Your task to perform on an android device: Show me popular games on the Play Store Image 0: 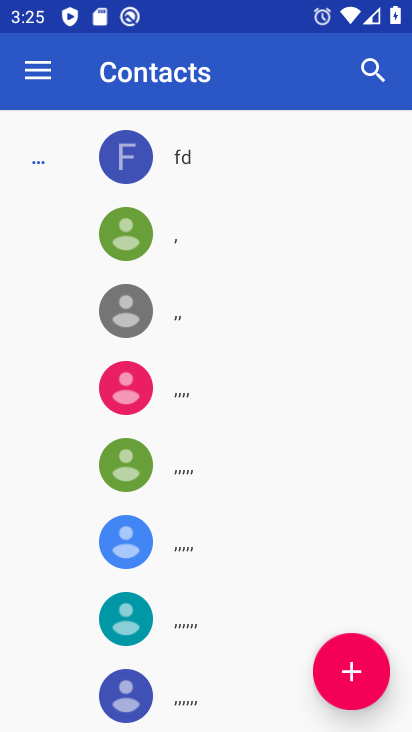
Step 0: press home button
Your task to perform on an android device: Show me popular games on the Play Store Image 1: 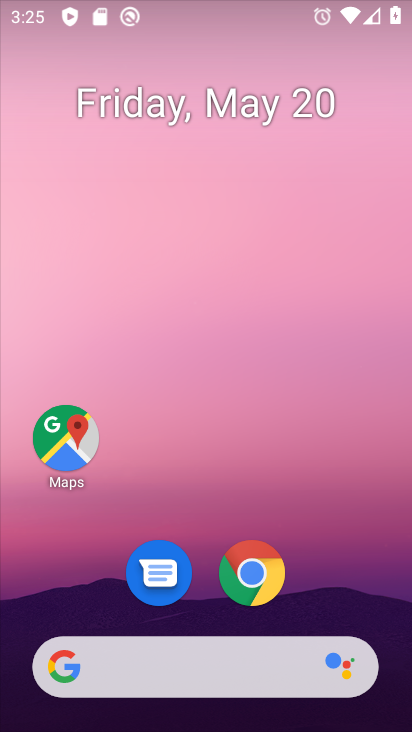
Step 1: drag from (216, 635) to (216, 145)
Your task to perform on an android device: Show me popular games on the Play Store Image 2: 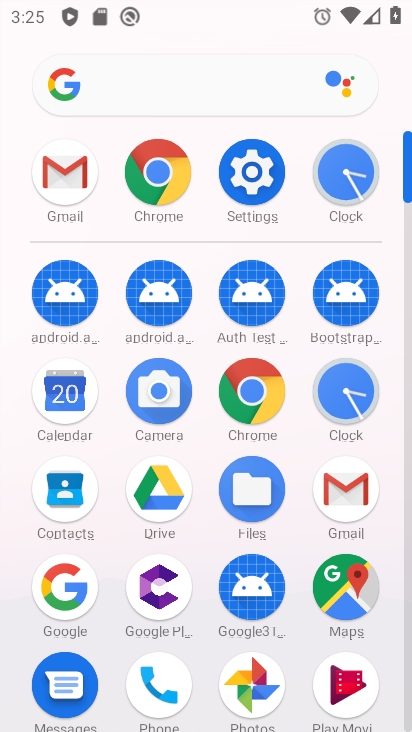
Step 2: drag from (206, 556) to (187, 233)
Your task to perform on an android device: Show me popular games on the Play Store Image 3: 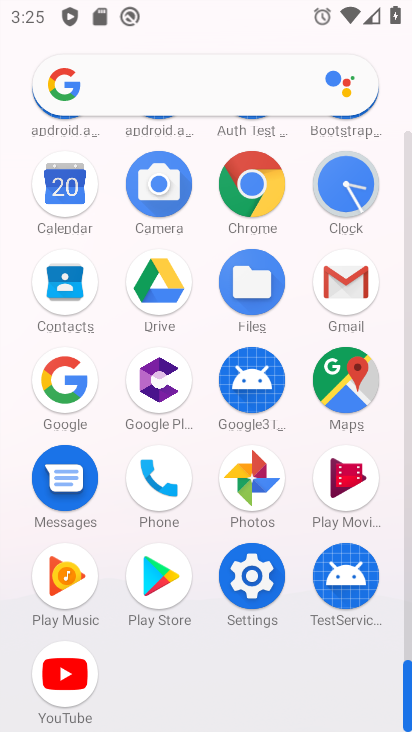
Step 3: click (167, 590)
Your task to perform on an android device: Show me popular games on the Play Store Image 4: 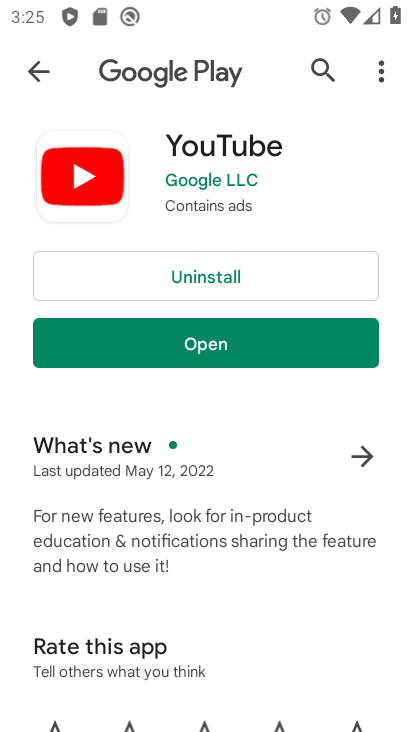
Step 4: click (36, 71)
Your task to perform on an android device: Show me popular games on the Play Store Image 5: 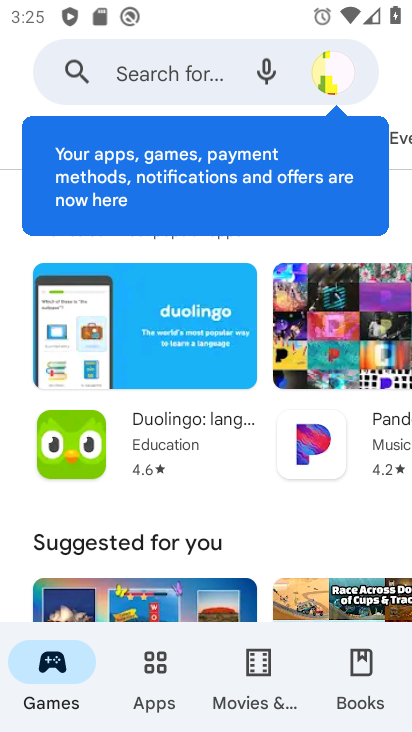
Step 5: drag from (178, 541) to (132, 215)
Your task to perform on an android device: Show me popular games on the Play Store Image 6: 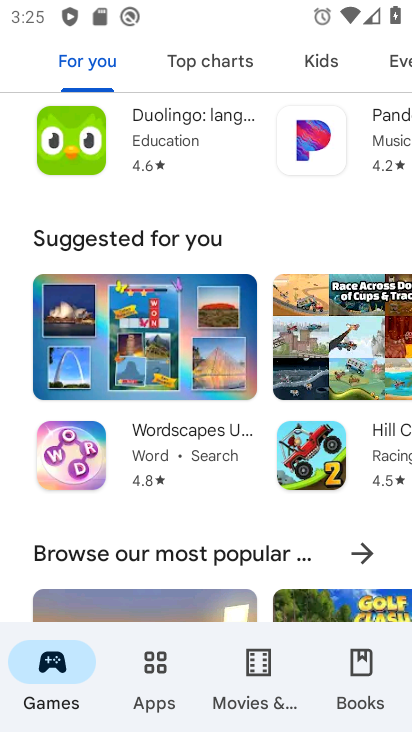
Step 6: click (348, 550)
Your task to perform on an android device: Show me popular games on the Play Store Image 7: 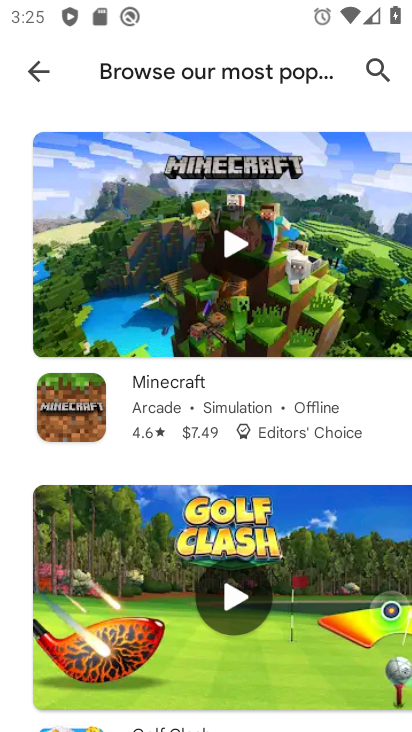
Step 7: task complete